Your task to perform on an android device: Open settings on Google Maps Image 0: 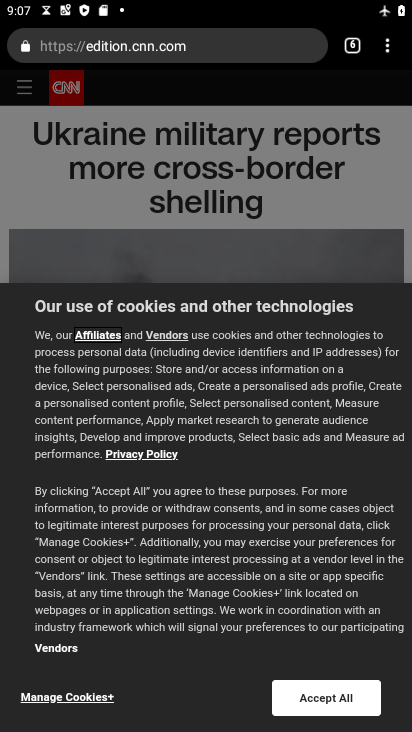
Step 0: press home button
Your task to perform on an android device: Open settings on Google Maps Image 1: 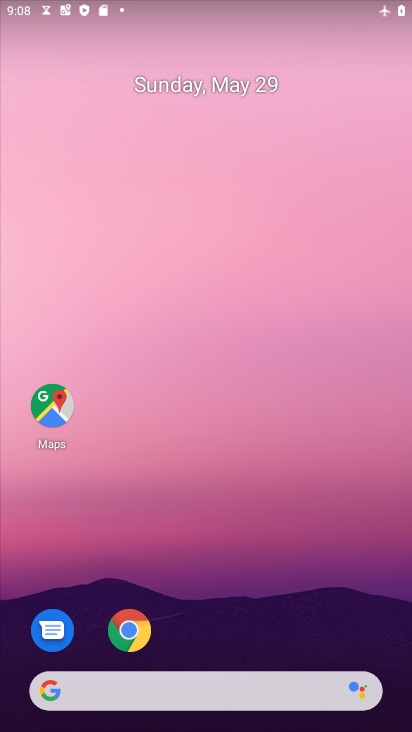
Step 1: click (44, 407)
Your task to perform on an android device: Open settings on Google Maps Image 2: 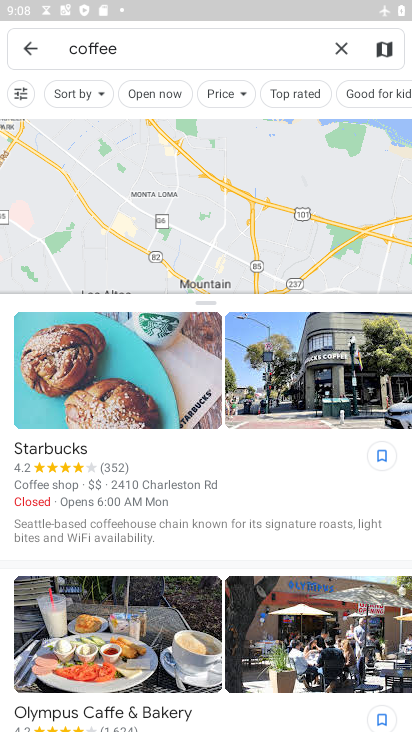
Step 2: click (27, 51)
Your task to perform on an android device: Open settings on Google Maps Image 3: 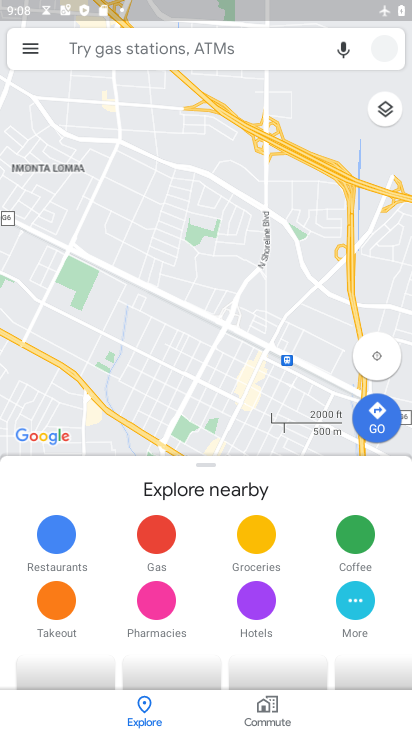
Step 3: click (27, 51)
Your task to perform on an android device: Open settings on Google Maps Image 4: 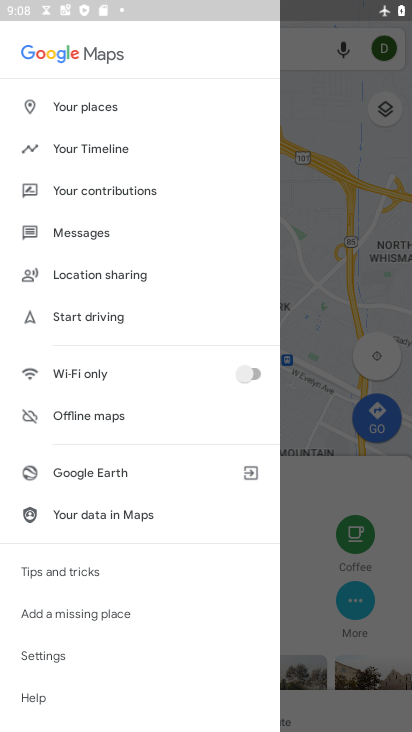
Step 4: click (47, 664)
Your task to perform on an android device: Open settings on Google Maps Image 5: 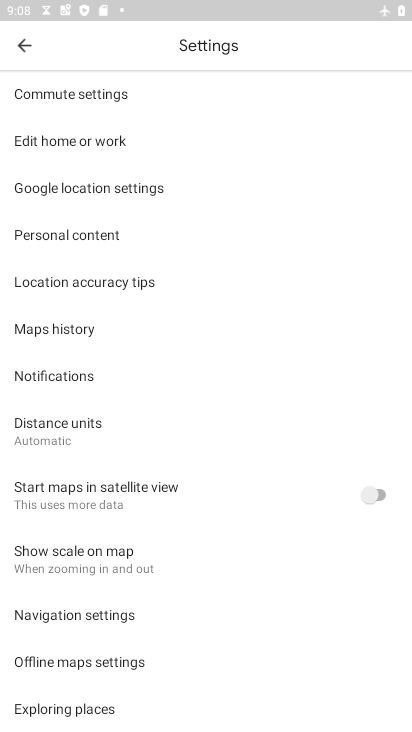
Step 5: task complete